Your task to perform on an android device: Open settings on Google Maps Image 0: 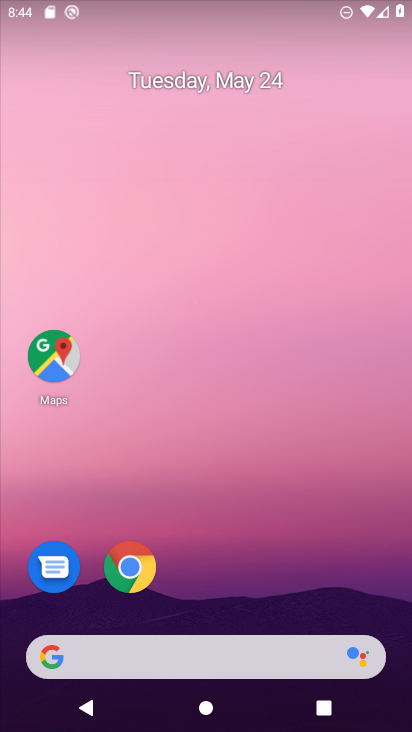
Step 0: press home button
Your task to perform on an android device: Open settings on Google Maps Image 1: 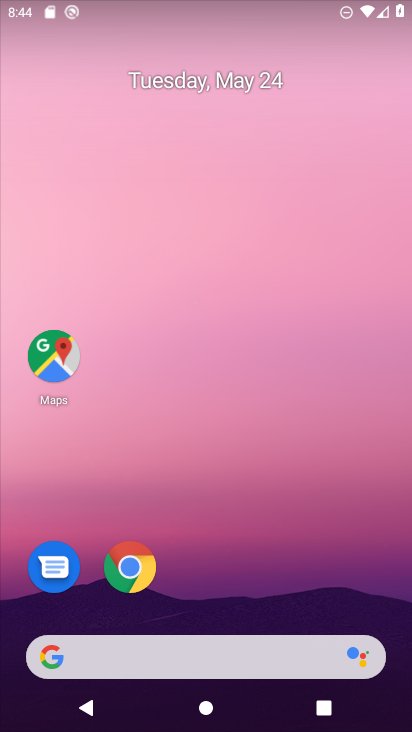
Step 1: click (58, 365)
Your task to perform on an android device: Open settings on Google Maps Image 2: 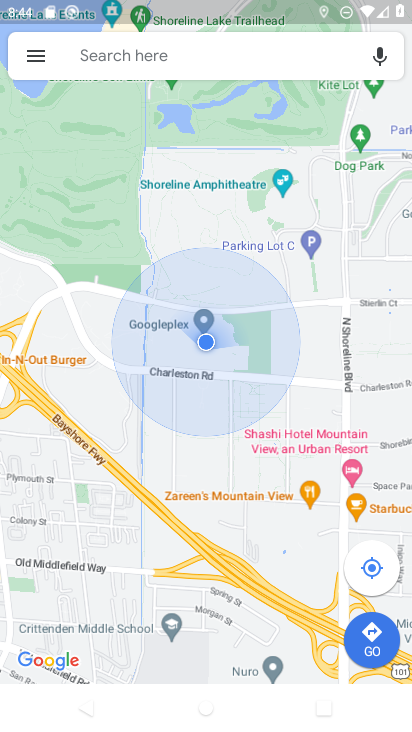
Step 2: click (40, 55)
Your task to perform on an android device: Open settings on Google Maps Image 3: 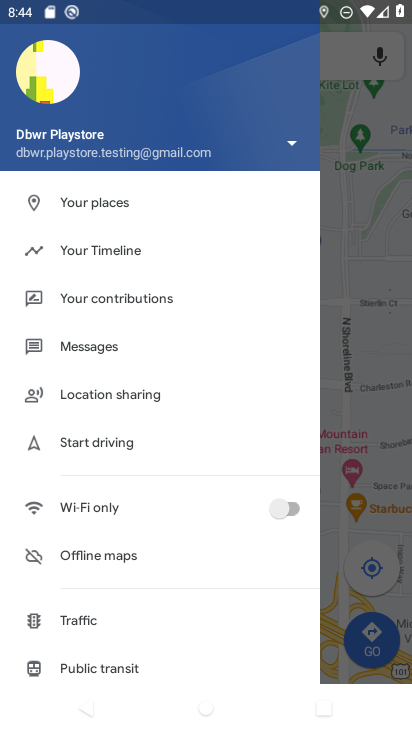
Step 3: drag from (189, 636) to (263, 132)
Your task to perform on an android device: Open settings on Google Maps Image 4: 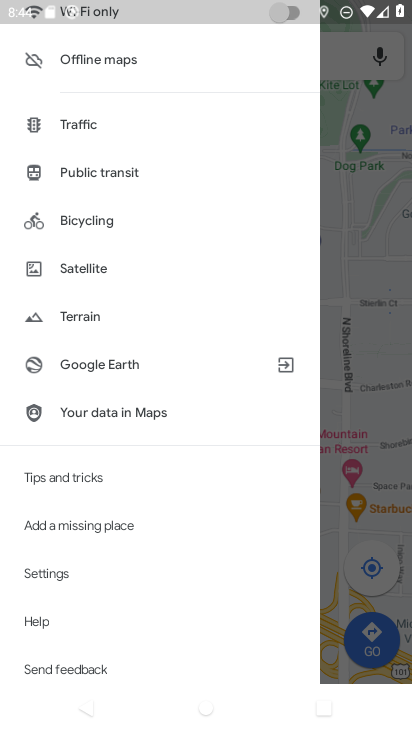
Step 4: click (65, 576)
Your task to perform on an android device: Open settings on Google Maps Image 5: 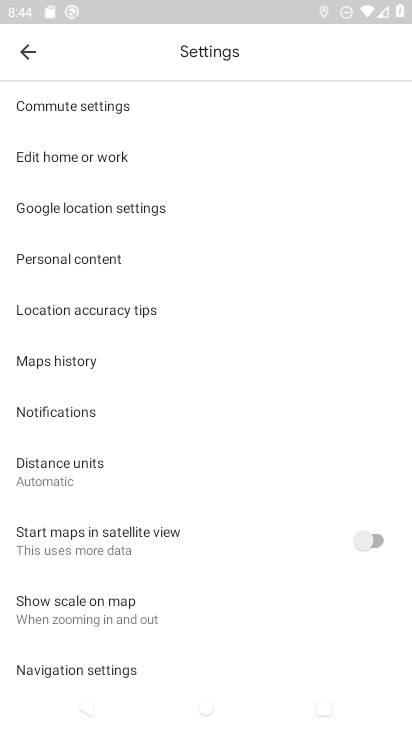
Step 5: task complete